Your task to perform on an android device: open chrome and create a bookmark for the current page Image 0: 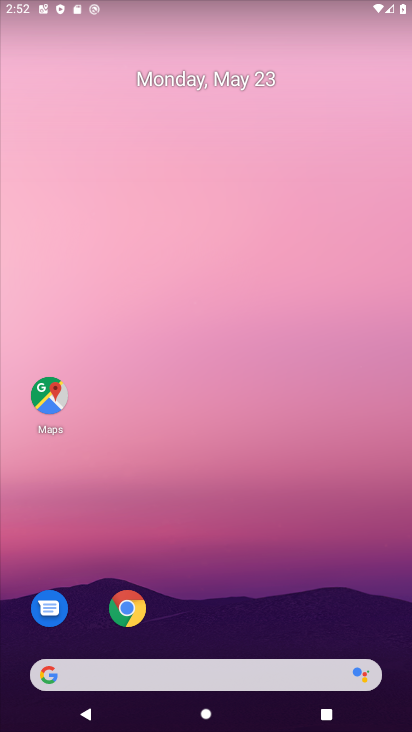
Step 0: click (127, 609)
Your task to perform on an android device: open chrome and create a bookmark for the current page Image 1: 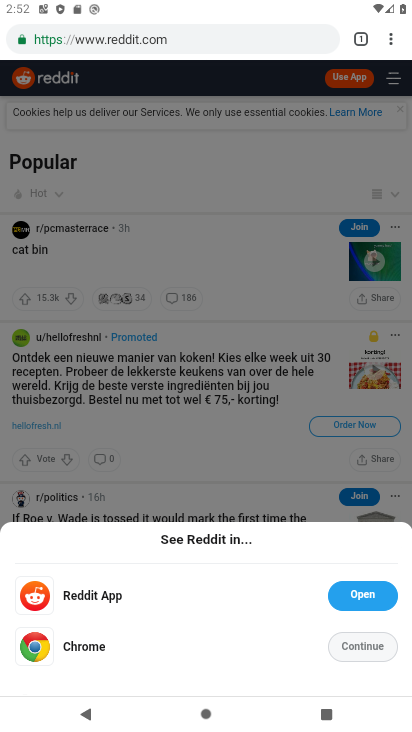
Step 1: click (393, 40)
Your task to perform on an android device: open chrome and create a bookmark for the current page Image 2: 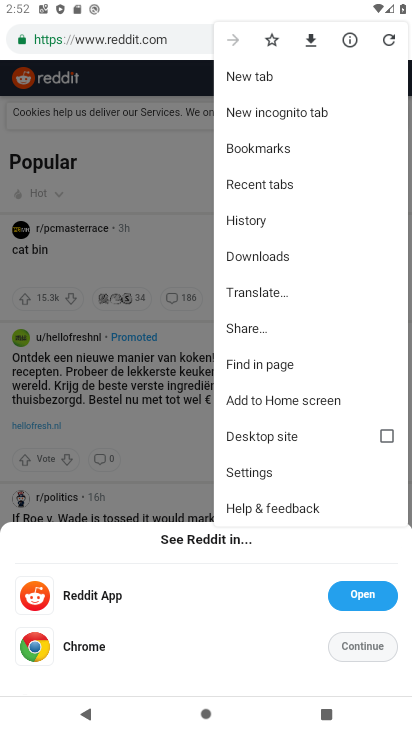
Step 2: click (270, 42)
Your task to perform on an android device: open chrome and create a bookmark for the current page Image 3: 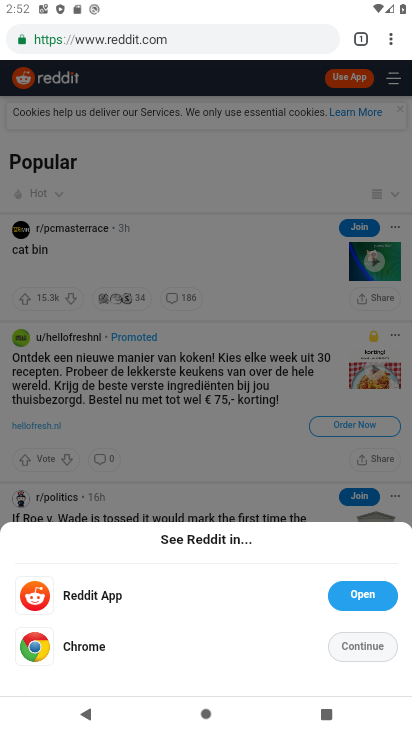
Step 3: task complete